Your task to perform on an android device: check the backup settings in the google photos Image 0: 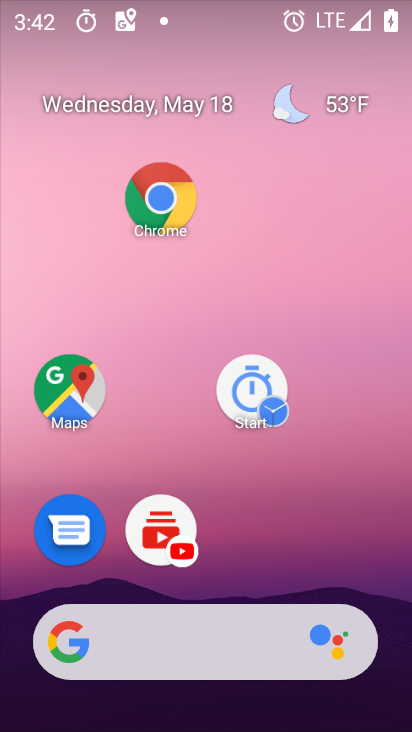
Step 0: drag from (237, 701) to (205, 6)
Your task to perform on an android device: check the backup settings in the google photos Image 1: 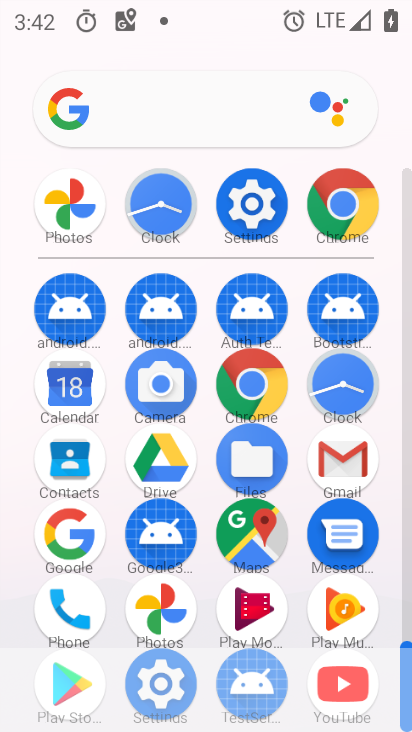
Step 1: click (174, 609)
Your task to perform on an android device: check the backup settings in the google photos Image 2: 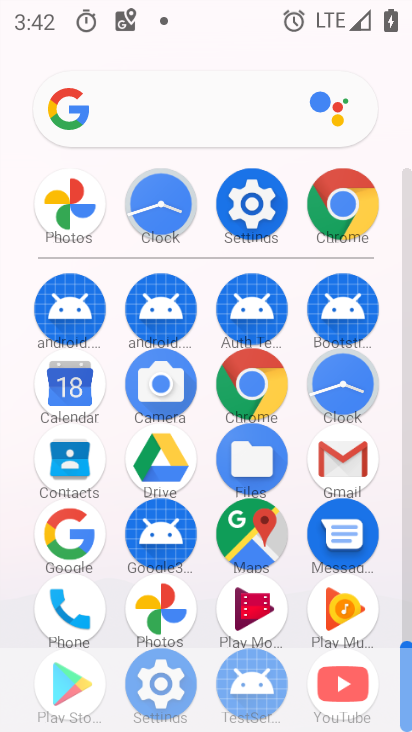
Step 2: click (175, 610)
Your task to perform on an android device: check the backup settings in the google photos Image 3: 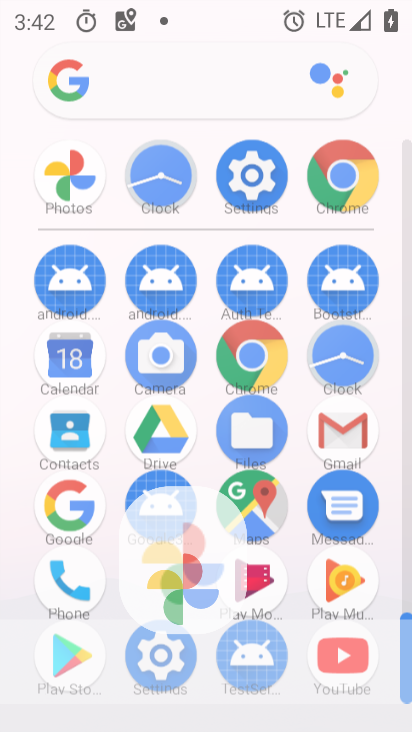
Step 3: click (175, 610)
Your task to perform on an android device: check the backup settings in the google photos Image 4: 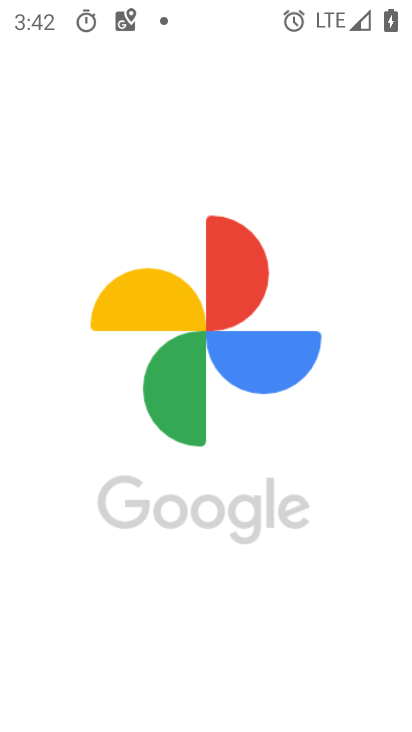
Step 4: click (176, 611)
Your task to perform on an android device: check the backup settings in the google photos Image 5: 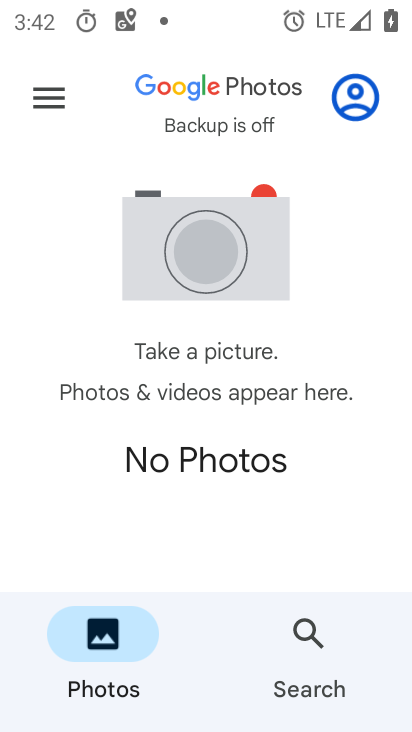
Step 5: click (341, 92)
Your task to perform on an android device: check the backup settings in the google photos Image 6: 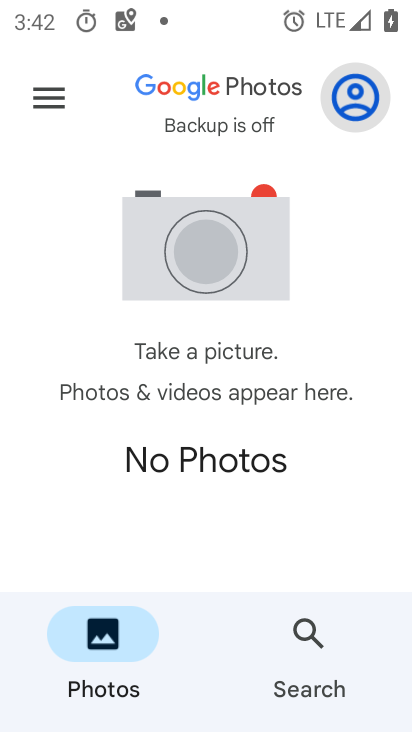
Step 6: click (207, 126)
Your task to perform on an android device: check the backup settings in the google photos Image 7: 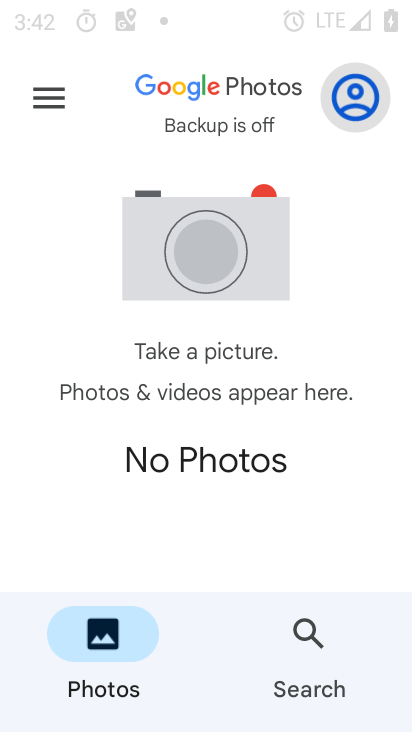
Step 7: click (207, 126)
Your task to perform on an android device: check the backup settings in the google photos Image 8: 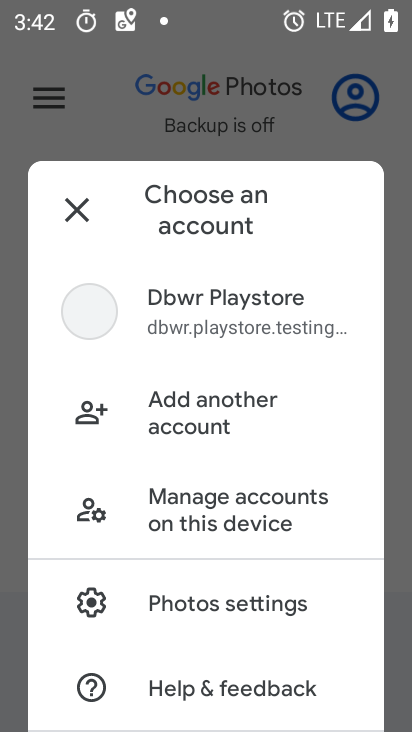
Step 8: click (207, 126)
Your task to perform on an android device: check the backup settings in the google photos Image 9: 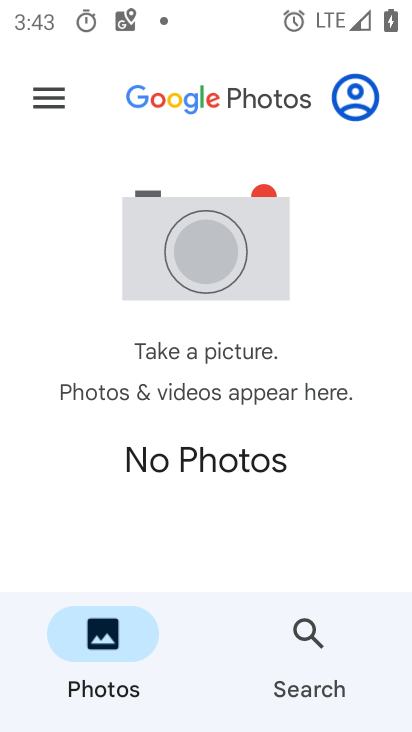
Step 9: click (214, 125)
Your task to perform on an android device: check the backup settings in the google photos Image 10: 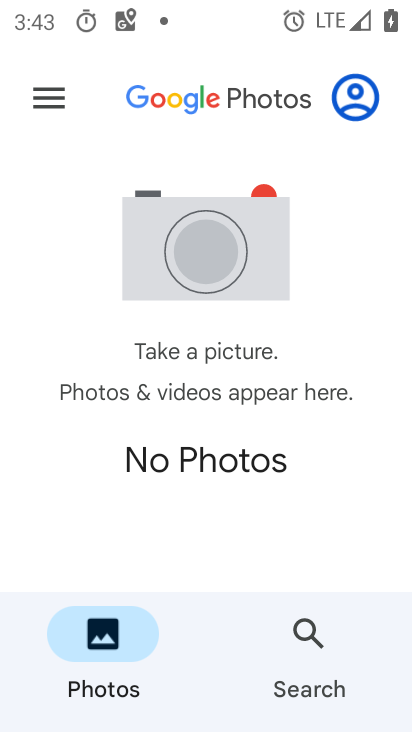
Step 10: click (375, 108)
Your task to perform on an android device: check the backup settings in the google photos Image 11: 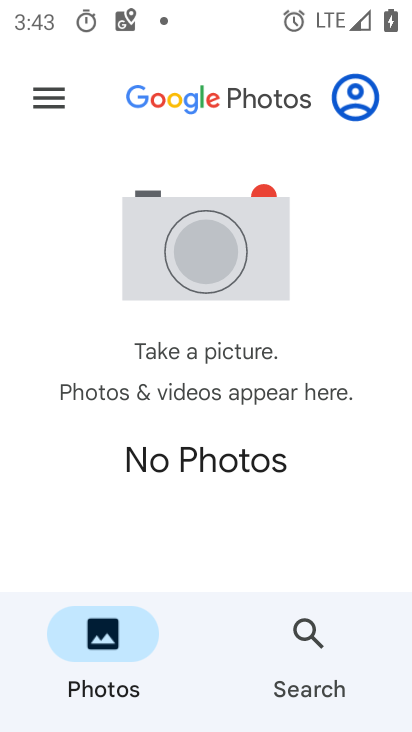
Step 11: click (375, 108)
Your task to perform on an android device: check the backup settings in the google photos Image 12: 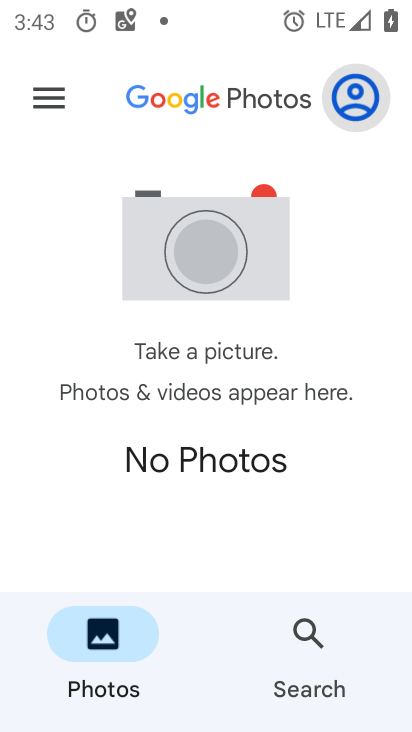
Step 12: click (376, 108)
Your task to perform on an android device: check the backup settings in the google photos Image 13: 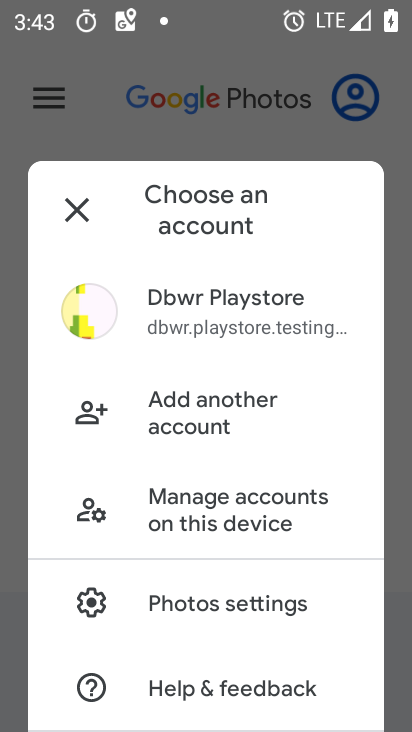
Step 13: click (371, 105)
Your task to perform on an android device: check the backup settings in the google photos Image 14: 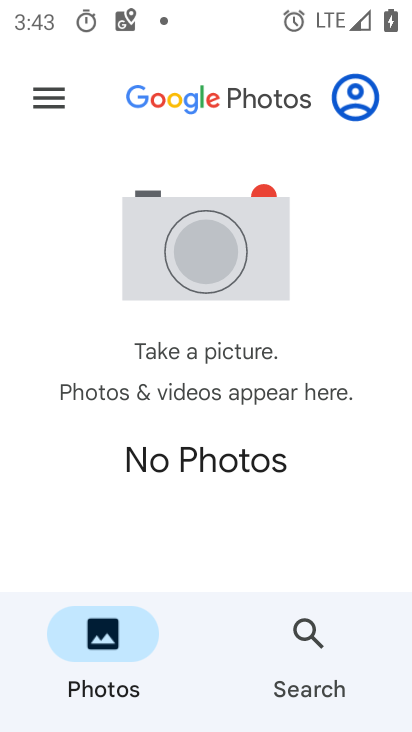
Step 14: click (62, 84)
Your task to perform on an android device: check the backup settings in the google photos Image 15: 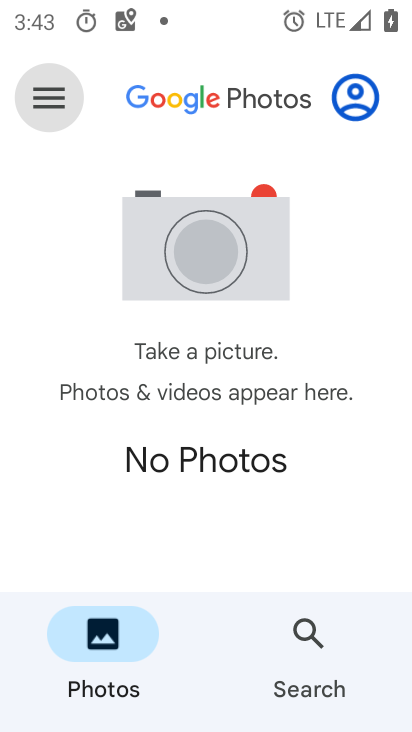
Step 15: click (67, 104)
Your task to perform on an android device: check the backup settings in the google photos Image 16: 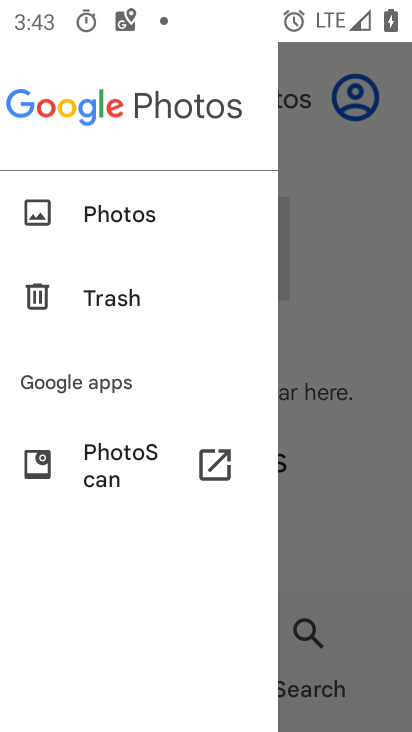
Step 16: click (67, 104)
Your task to perform on an android device: check the backup settings in the google photos Image 17: 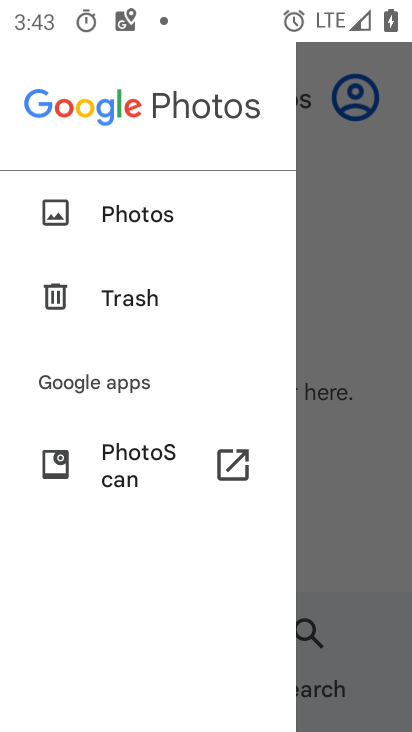
Step 17: click (67, 104)
Your task to perform on an android device: check the backup settings in the google photos Image 18: 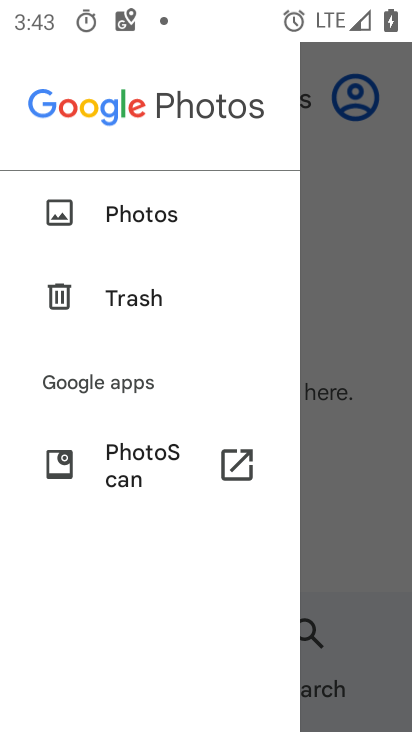
Step 18: click (138, 460)
Your task to perform on an android device: check the backup settings in the google photos Image 19: 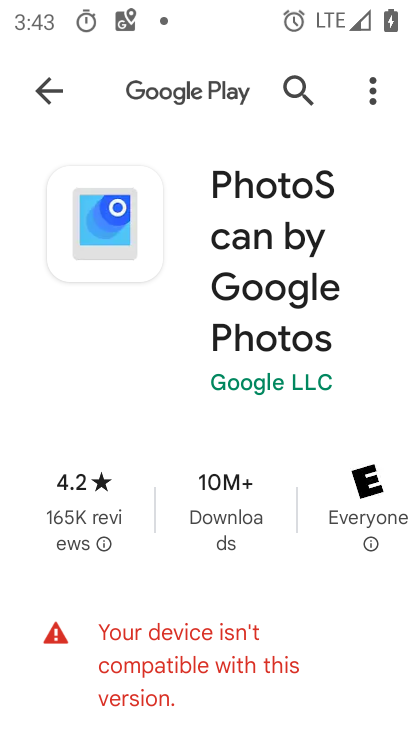
Step 19: click (50, 84)
Your task to perform on an android device: check the backup settings in the google photos Image 20: 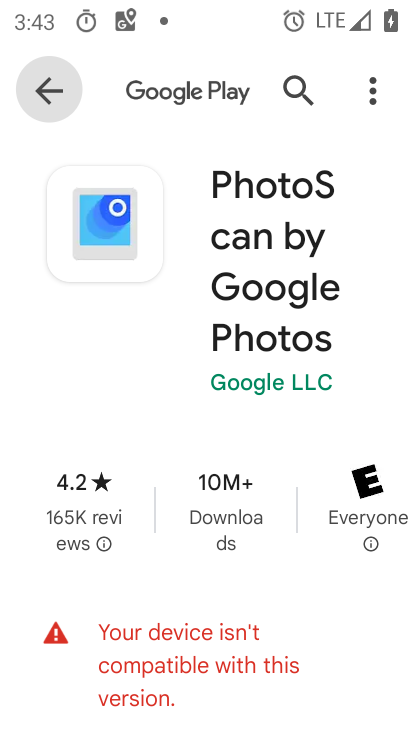
Step 20: click (54, 84)
Your task to perform on an android device: check the backup settings in the google photos Image 21: 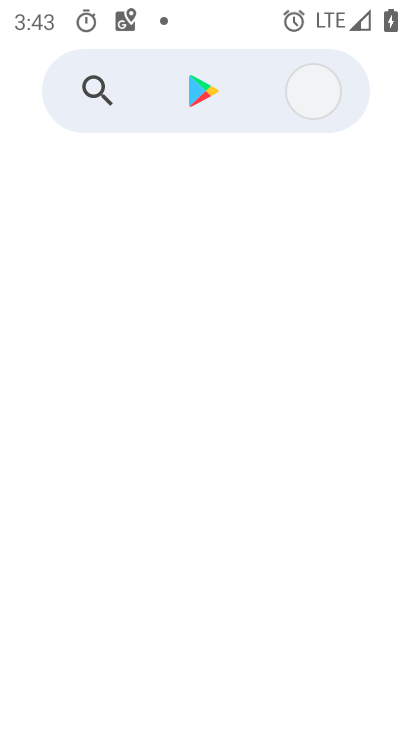
Step 21: click (54, 84)
Your task to perform on an android device: check the backup settings in the google photos Image 22: 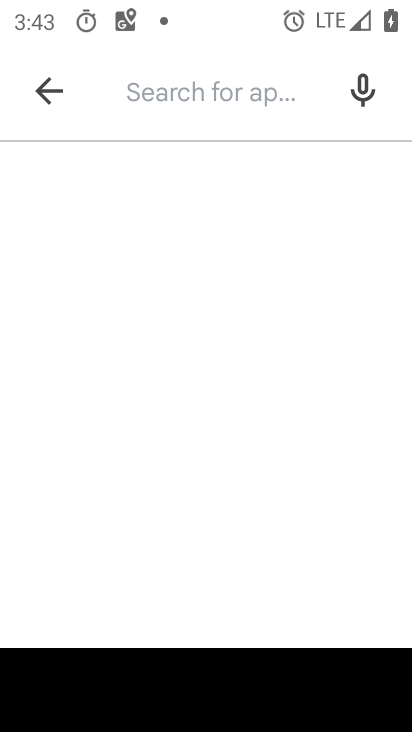
Step 22: click (51, 81)
Your task to perform on an android device: check the backup settings in the google photos Image 23: 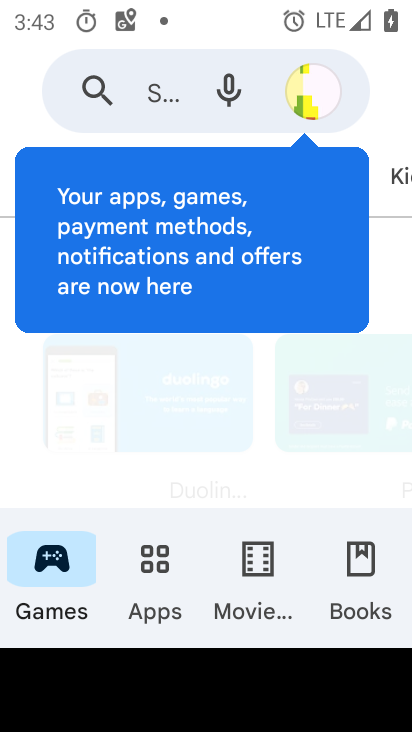
Step 23: click (60, 88)
Your task to perform on an android device: check the backup settings in the google photos Image 24: 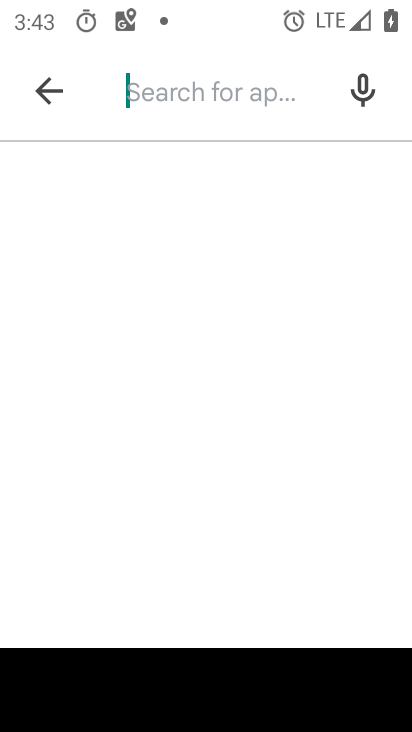
Step 24: click (41, 90)
Your task to perform on an android device: check the backup settings in the google photos Image 25: 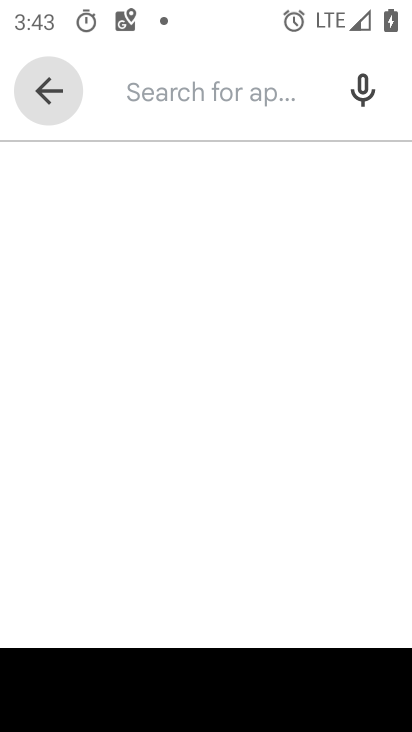
Step 25: click (43, 88)
Your task to perform on an android device: check the backup settings in the google photos Image 26: 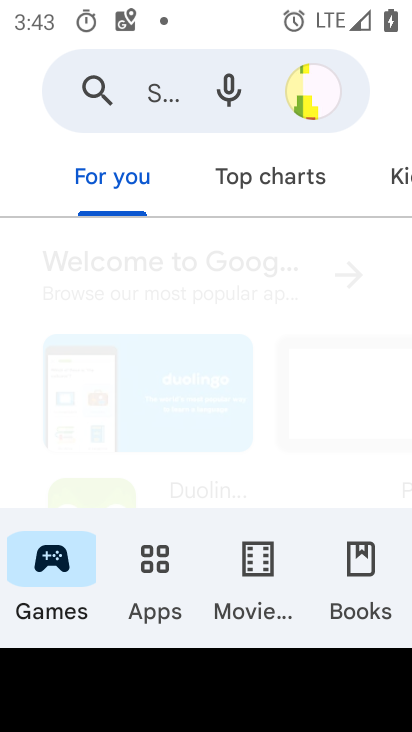
Step 26: click (43, 88)
Your task to perform on an android device: check the backup settings in the google photos Image 27: 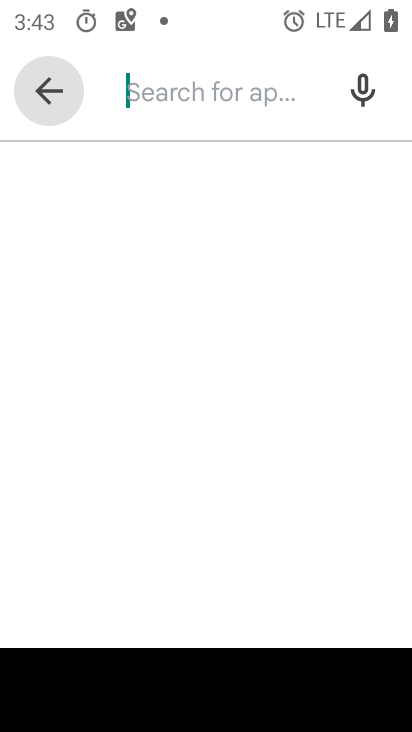
Step 27: click (45, 87)
Your task to perform on an android device: check the backup settings in the google photos Image 28: 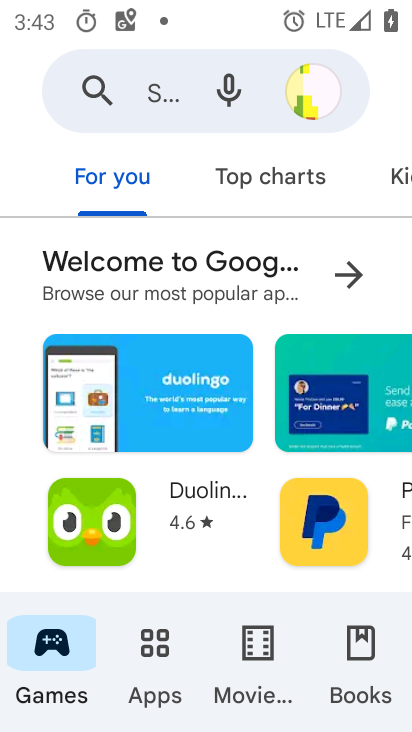
Step 28: click (53, 93)
Your task to perform on an android device: check the backup settings in the google photos Image 29: 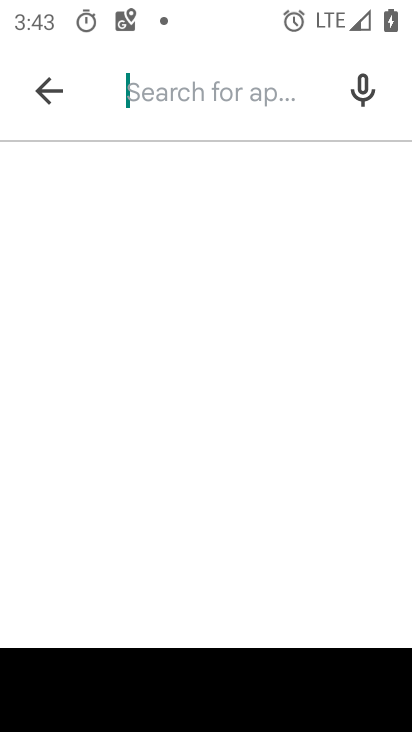
Step 29: press back button
Your task to perform on an android device: check the backup settings in the google photos Image 30: 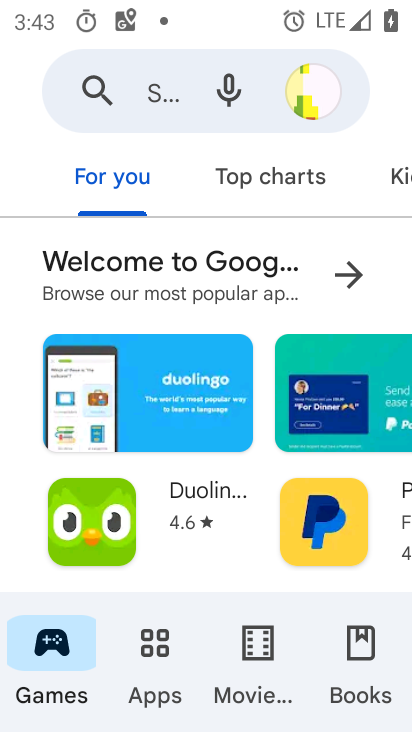
Step 30: press home button
Your task to perform on an android device: check the backup settings in the google photos Image 31: 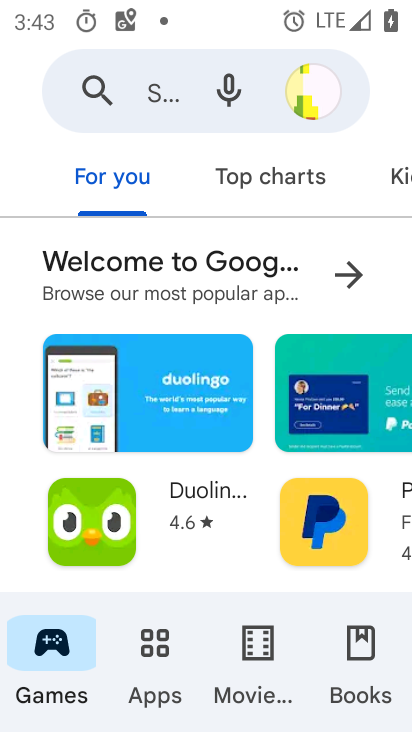
Step 31: press home button
Your task to perform on an android device: check the backup settings in the google photos Image 32: 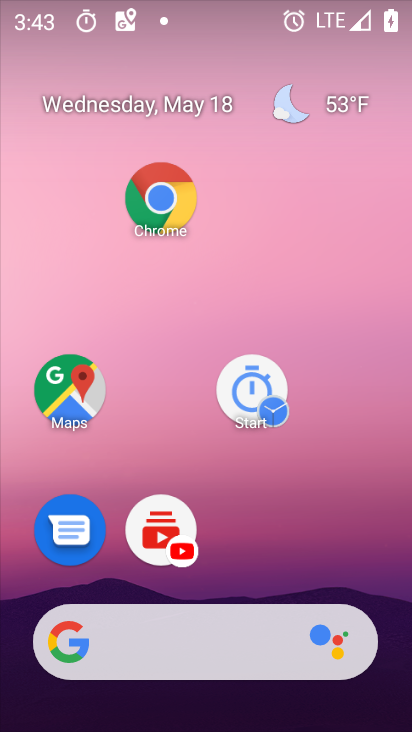
Step 32: drag from (287, 586) to (219, 100)
Your task to perform on an android device: check the backup settings in the google photos Image 33: 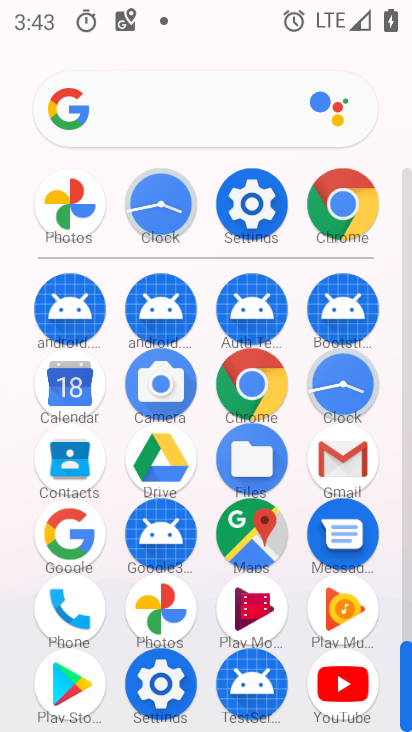
Step 33: click (163, 607)
Your task to perform on an android device: check the backup settings in the google photos Image 34: 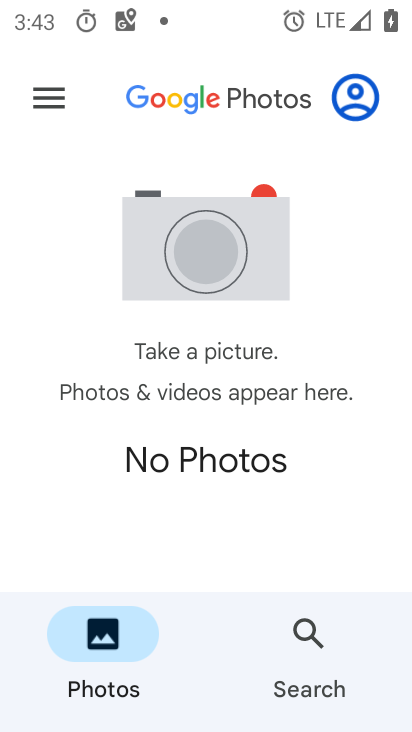
Step 34: click (116, 646)
Your task to perform on an android device: check the backup settings in the google photos Image 35: 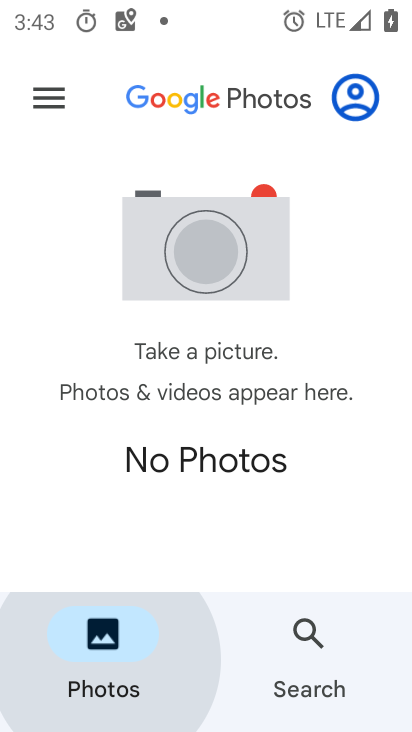
Step 35: click (104, 638)
Your task to perform on an android device: check the backup settings in the google photos Image 36: 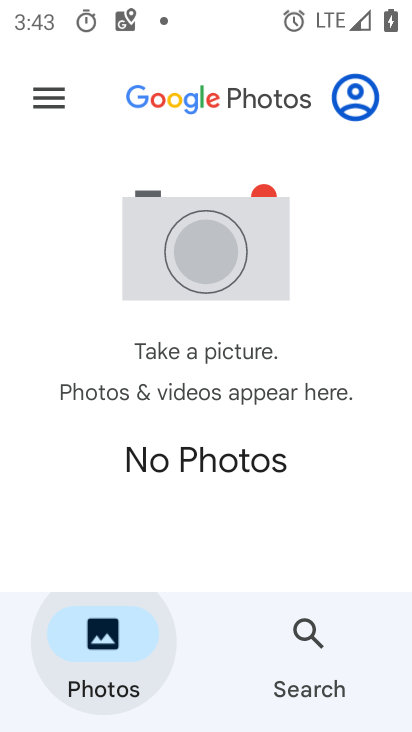
Step 36: click (95, 633)
Your task to perform on an android device: check the backup settings in the google photos Image 37: 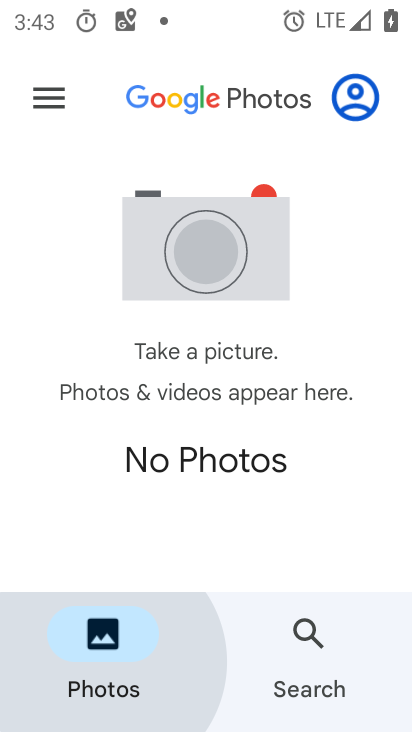
Step 37: click (89, 630)
Your task to perform on an android device: check the backup settings in the google photos Image 38: 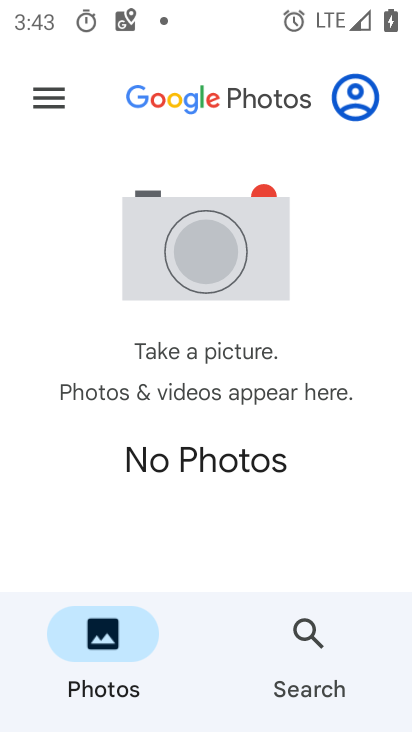
Step 38: click (206, 239)
Your task to perform on an android device: check the backup settings in the google photos Image 39: 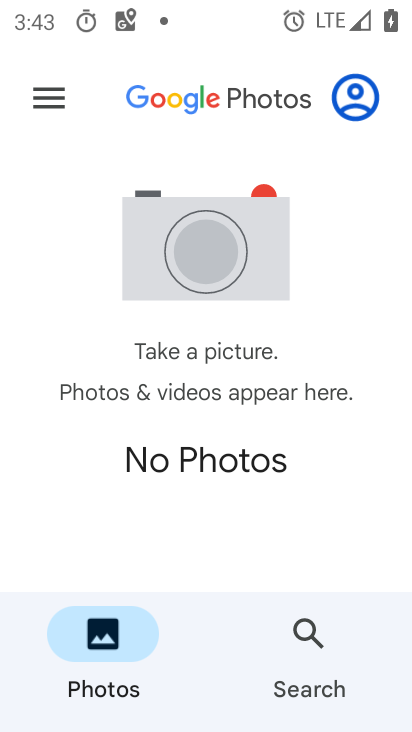
Step 39: click (206, 239)
Your task to perform on an android device: check the backup settings in the google photos Image 40: 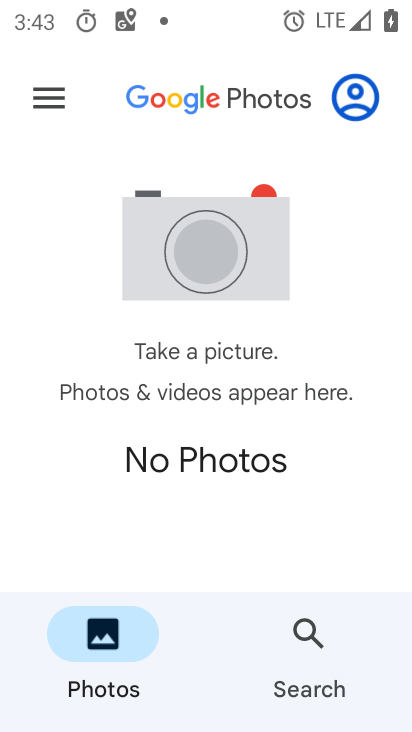
Step 40: click (347, 87)
Your task to perform on an android device: check the backup settings in the google photos Image 41: 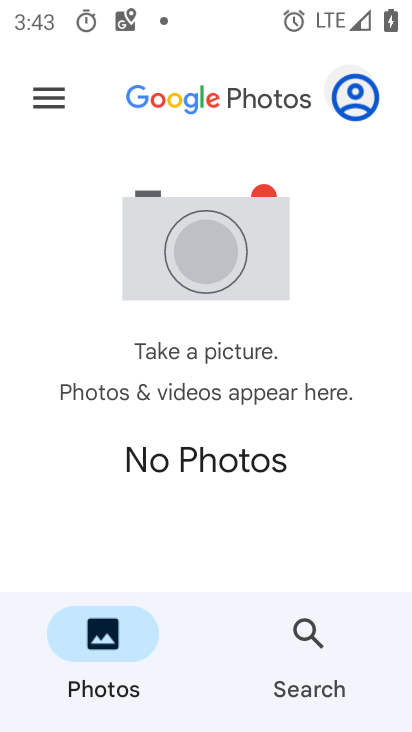
Step 41: click (353, 90)
Your task to perform on an android device: check the backup settings in the google photos Image 42: 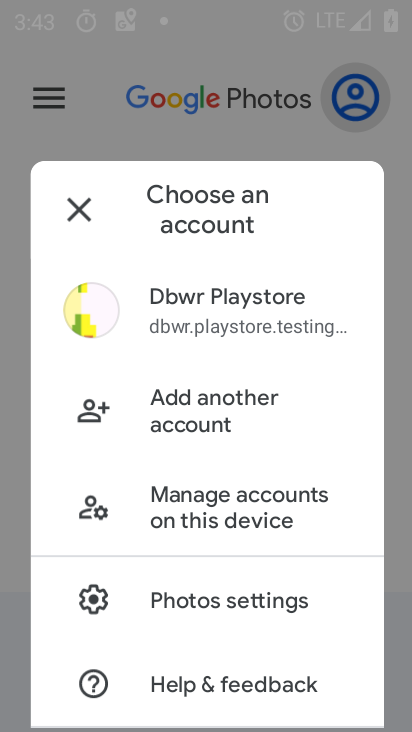
Step 42: click (353, 90)
Your task to perform on an android device: check the backup settings in the google photos Image 43: 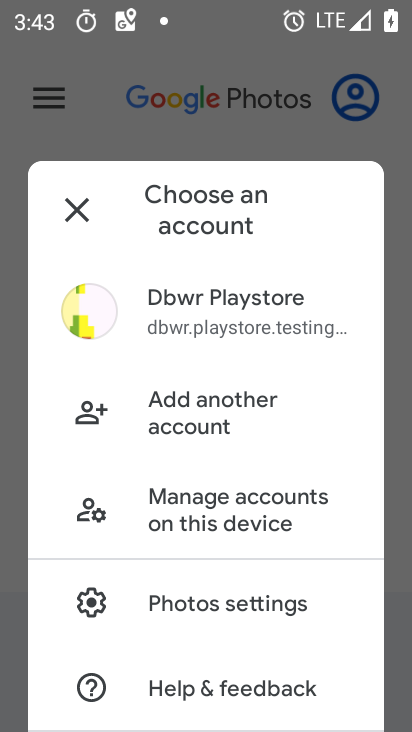
Step 43: click (354, 90)
Your task to perform on an android device: check the backup settings in the google photos Image 44: 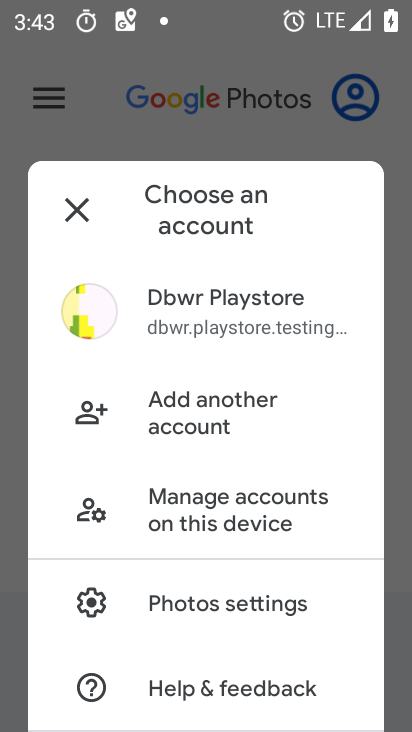
Step 44: click (222, 315)
Your task to perform on an android device: check the backup settings in the google photos Image 45: 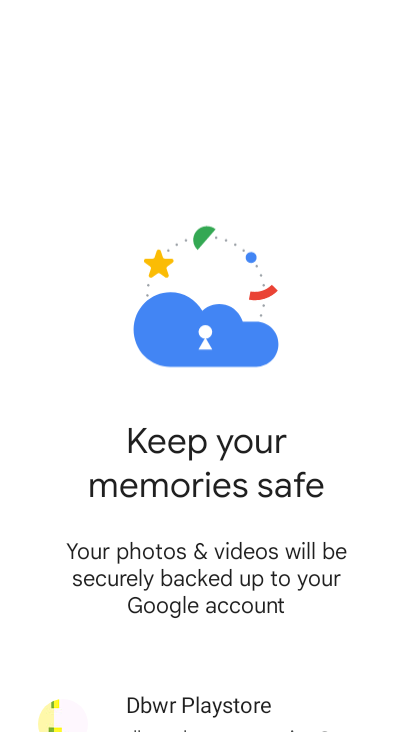
Step 45: drag from (219, 639) to (194, 355)
Your task to perform on an android device: check the backup settings in the google photos Image 46: 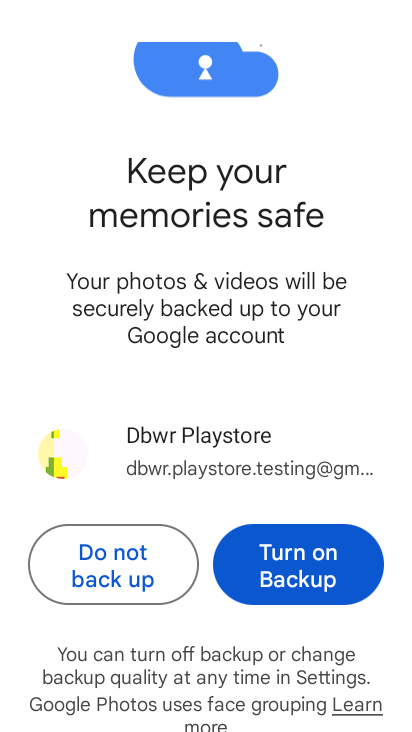
Step 46: drag from (184, 447) to (181, 300)
Your task to perform on an android device: check the backup settings in the google photos Image 47: 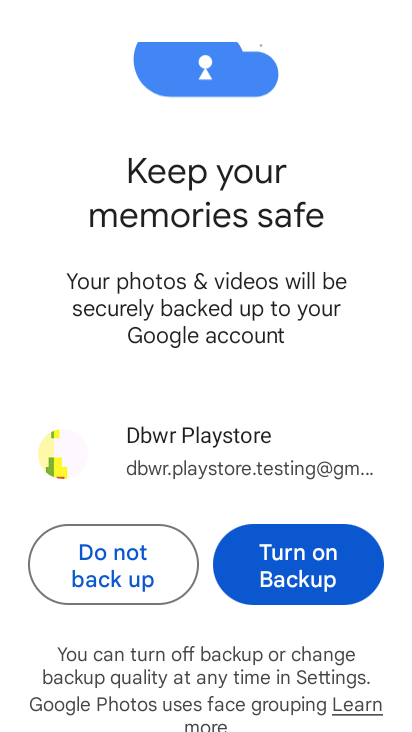
Step 47: click (291, 556)
Your task to perform on an android device: check the backup settings in the google photos Image 48: 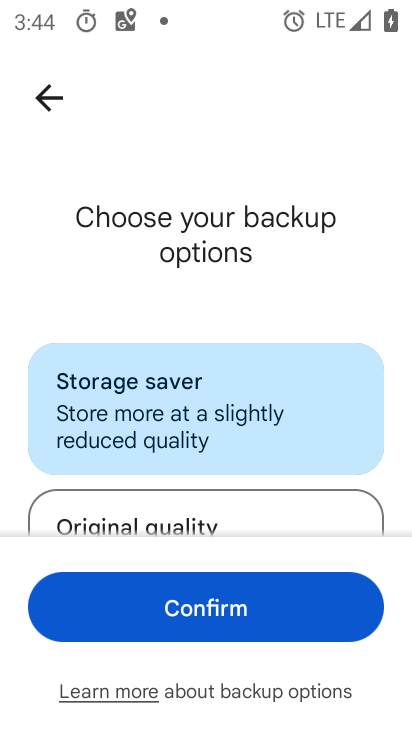
Step 48: click (210, 614)
Your task to perform on an android device: check the backup settings in the google photos Image 49: 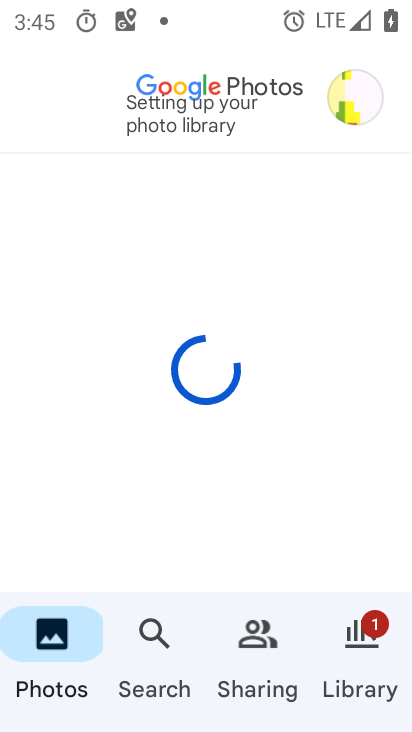
Step 49: task complete